Your task to perform on an android device: Open my contact list Image 0: 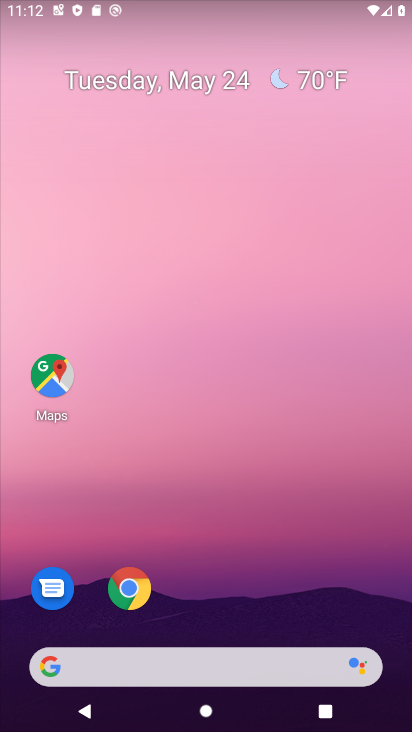
Step 0: press home button
Your task to perform on an android device: Open my contact list Image 1: 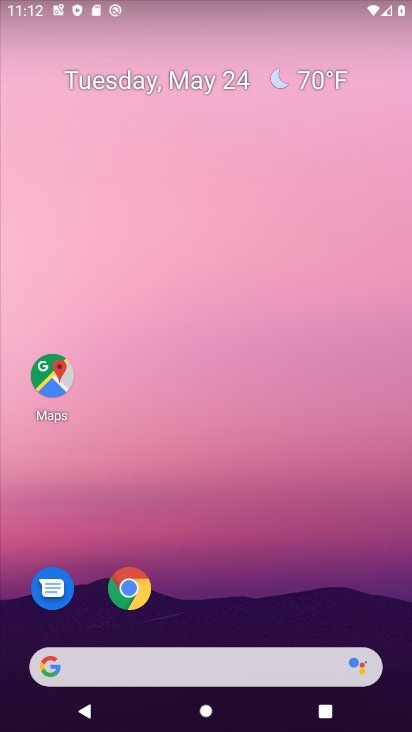
Step 1: drag from (213, 631) to (229, 40)
Your task to perform on an android device: Open my contact list Image 2: 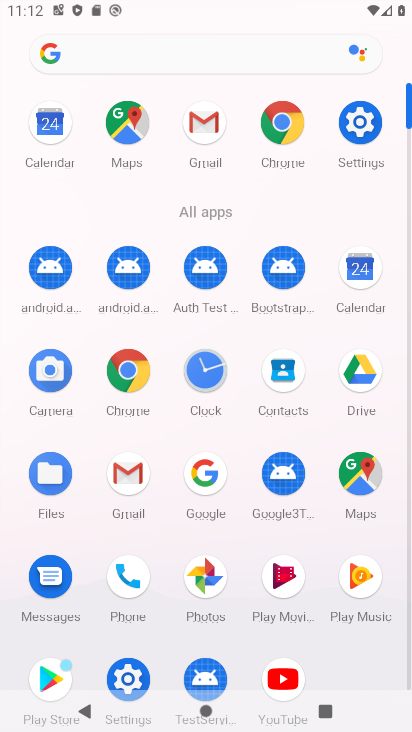
Step 2: click (280, 364)
Your task to perform on an android device: Open my contact list Image 3: 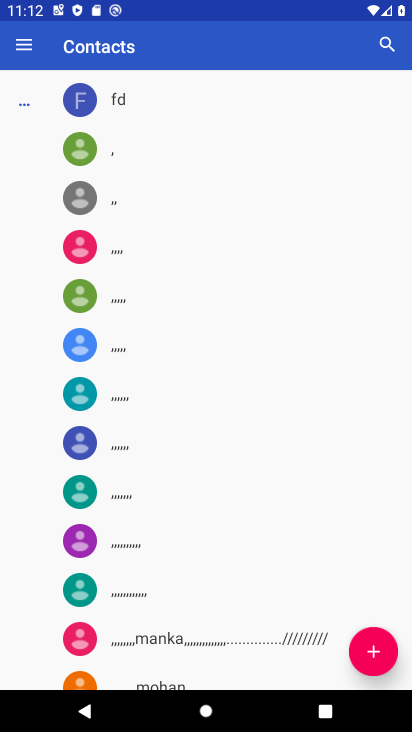
Step 3: task complete